Your task to perform on an android device: Go to Google Image 0: 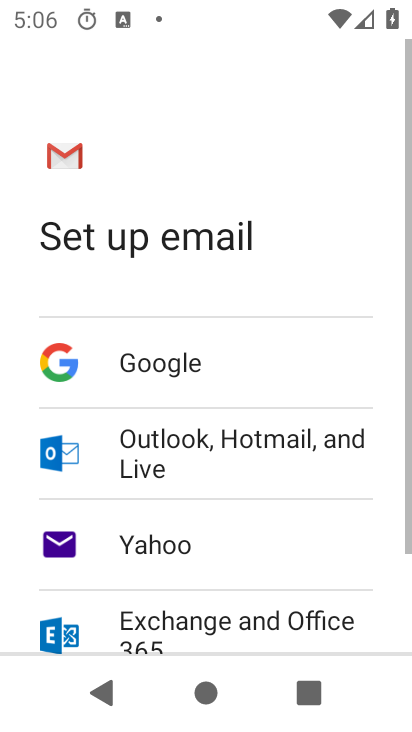
Step 0: drag from (266, 625) to (325, 110)
Your task to perform on an android device: Go to Google Image 1: 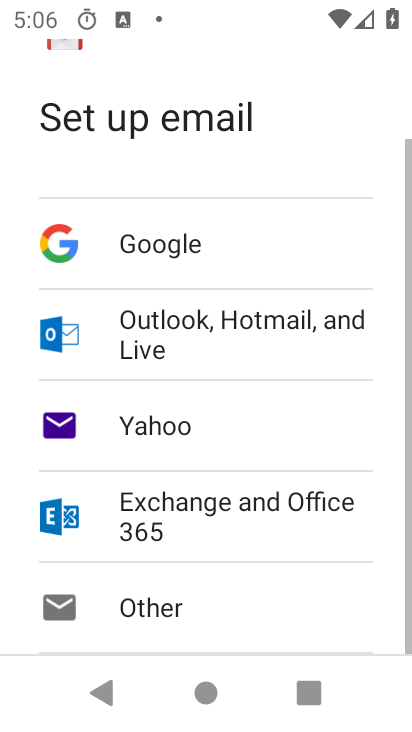
Step 1: press home button
Your task to perform on an android device: Go to Google Image 2: 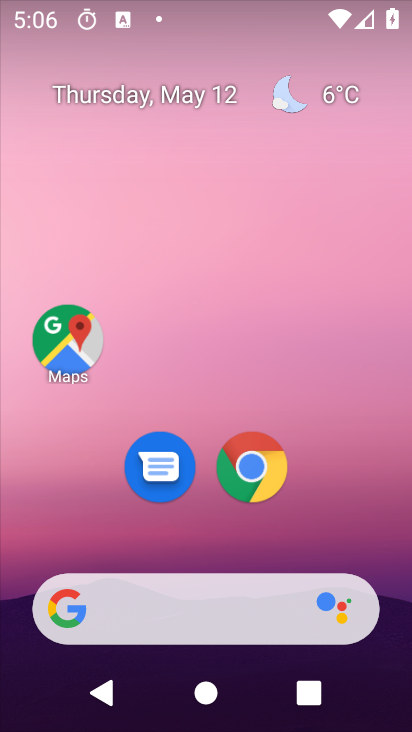
Step 2: drag from (248, 527) to (310, 9)
Your task to perform on an android device: Go to Google Image 3: 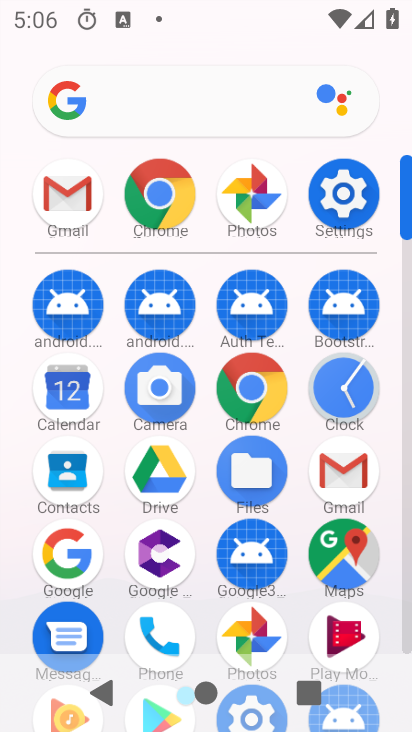
Step 3: click (271, 396)
Your task to perform on an android device: Go to Google Image 4: 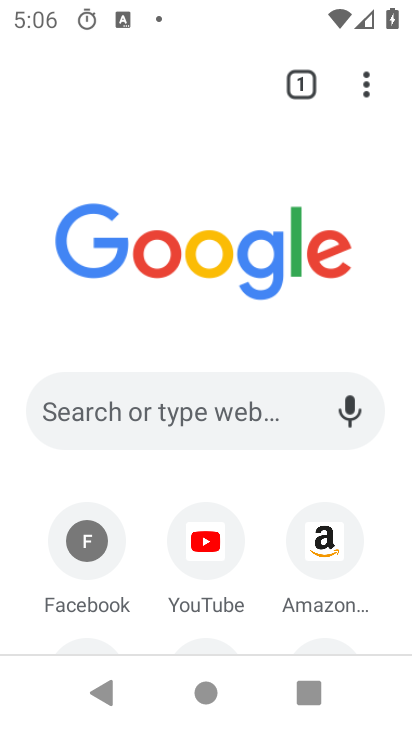
Step 4: task complete